Your task to perform on an android device: When is my next appointment? Image 0: 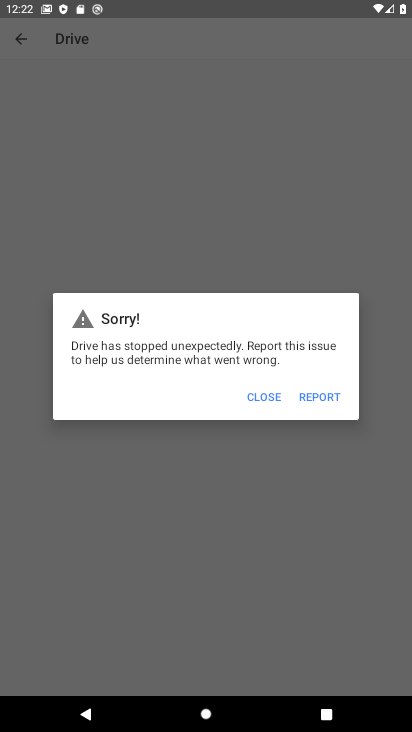
Step 0: press home button
Your task to perform on an android device: When is my next appointment? Image 1: 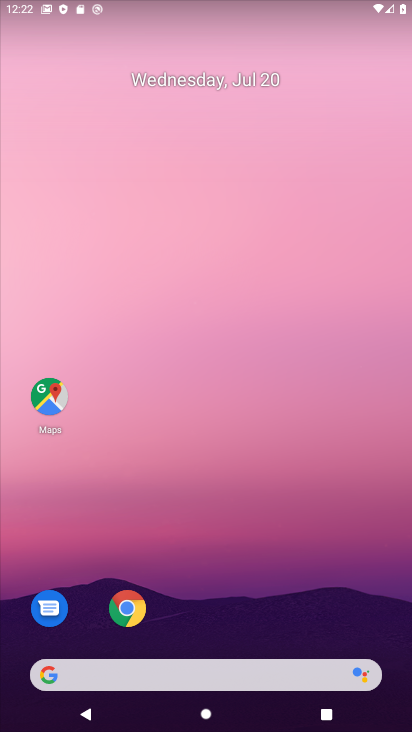
Step 1: drag from (205, 673) to (205, 249)
Your task to perform on an android device: When is my next appointment? Image 2: 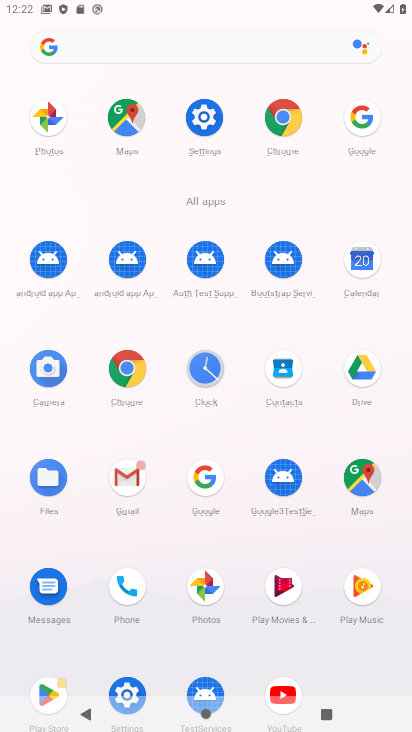
Step 2: click (362, 261)
Your task to perform on an android device: When is my next appointment? Image 3: 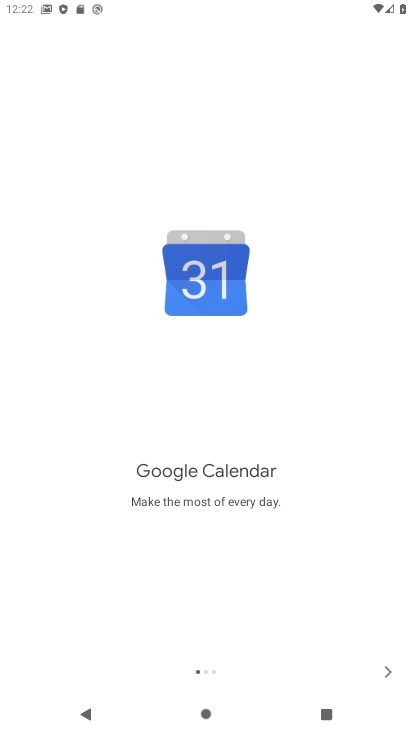
Step 3: click (378, 670)
Your task to perform on an android device: When is my next appointment? Image 4: 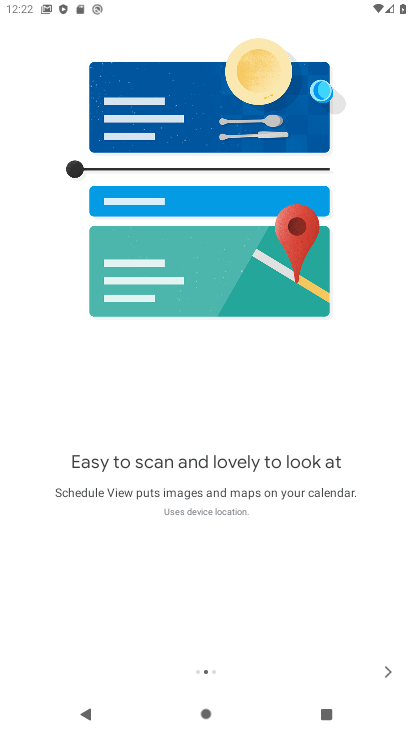
Step 4: click (378, 670)
Your task to perform on an android device: When is my next appointment? Image 5: 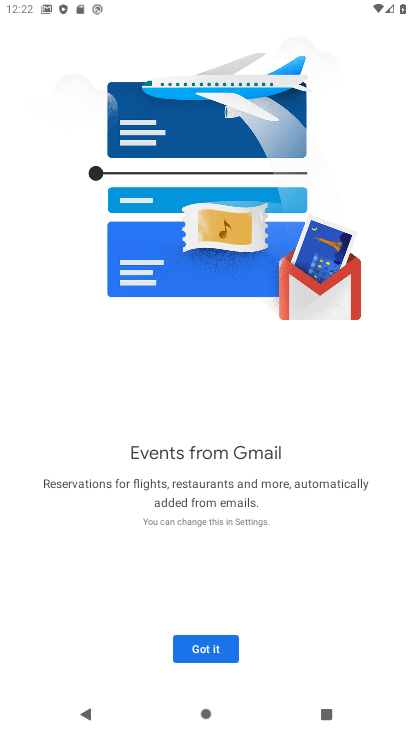
Step 5: click (185, 651)
Your task to perform on an android device: When is my next appointment? Image 6: 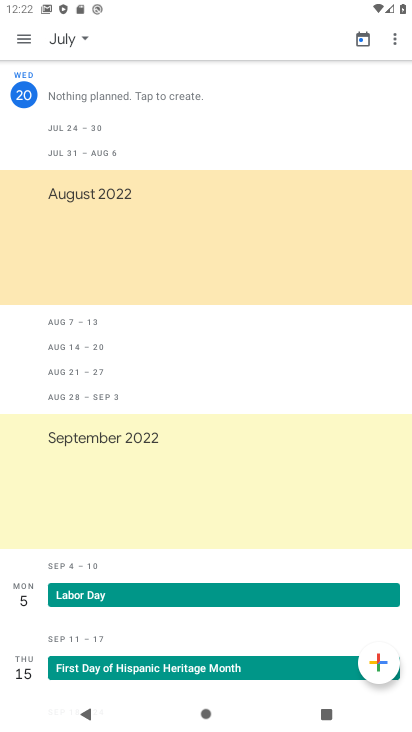
Step 6: click (78, 119)
Your task to perform on an android device: When is my next appointment? Image 7: 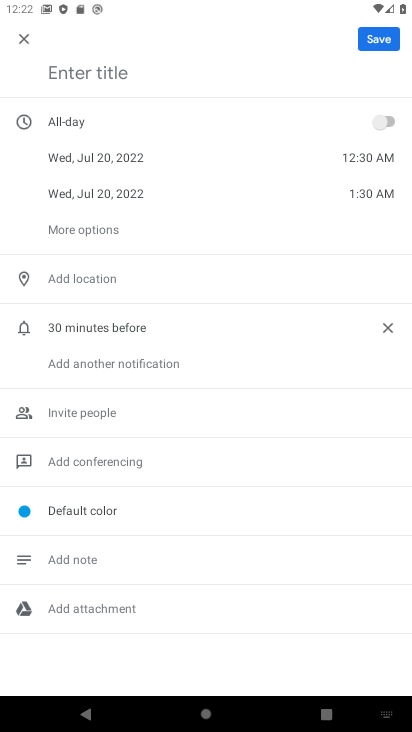
Step 7: click (84, 126)
Your task to perform on an android device: When is my next appointment? Image 8: 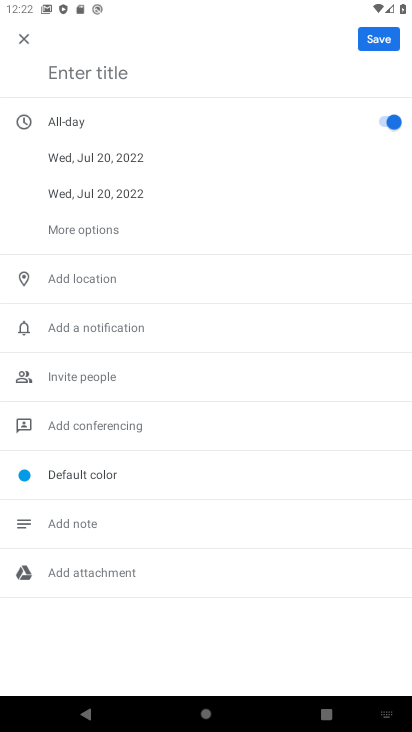
Step 8: task complete